Your task to perform on an android device: Go to eBay Image 0: 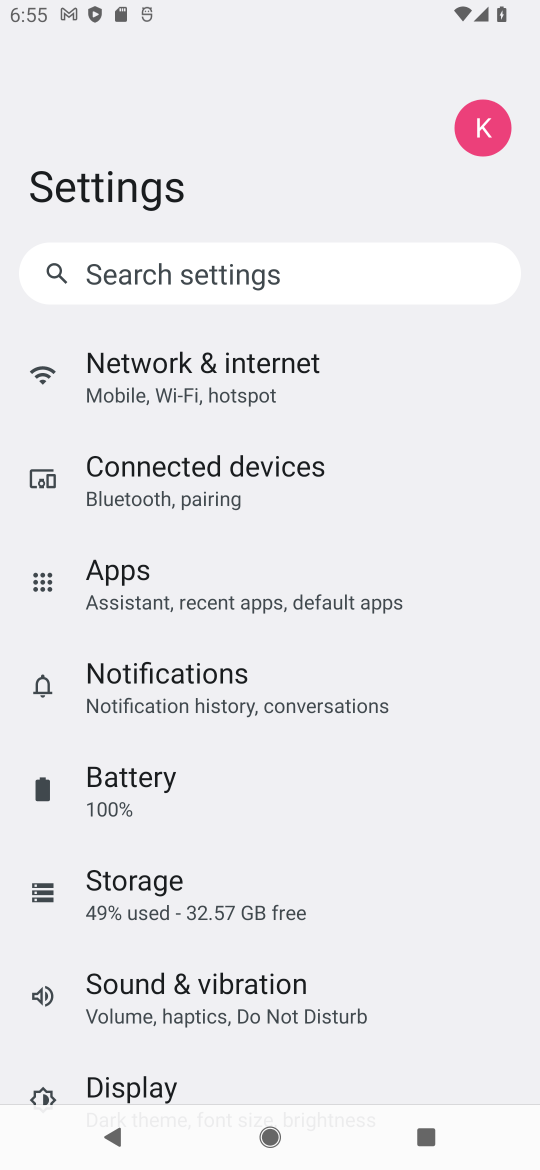
Step 0: press home button
Your task to perform on an android device: Go to eBay Image 1: 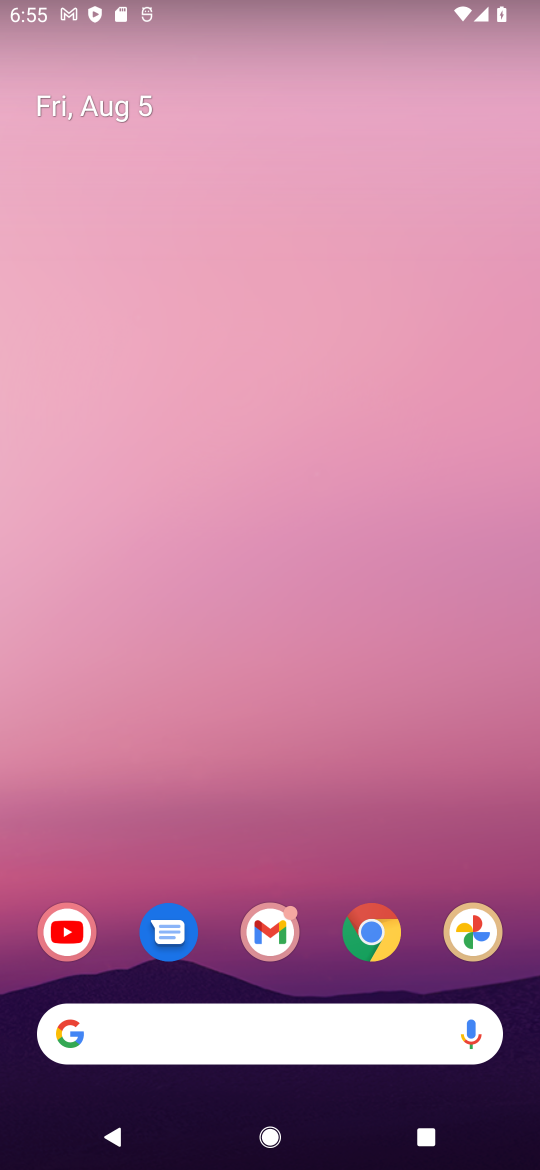
Step 1: drag from (376, 816) to (360, 152)
Your task to perform on an android device: Go to eBay Image 2: 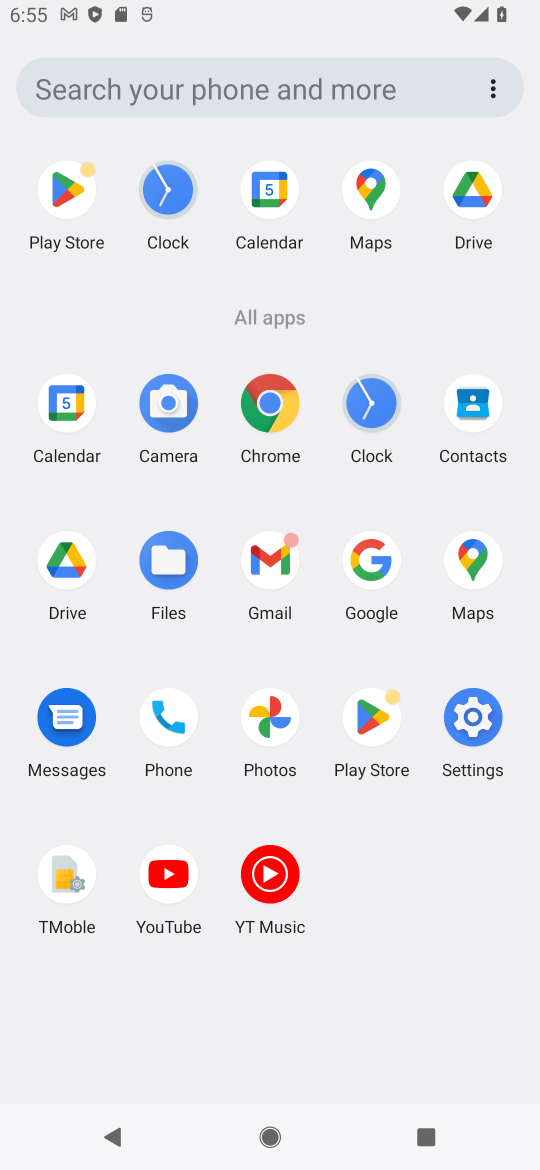
Step 2: click (277, 412)
Your task to perform on an android device: Go to eBay Image 3: 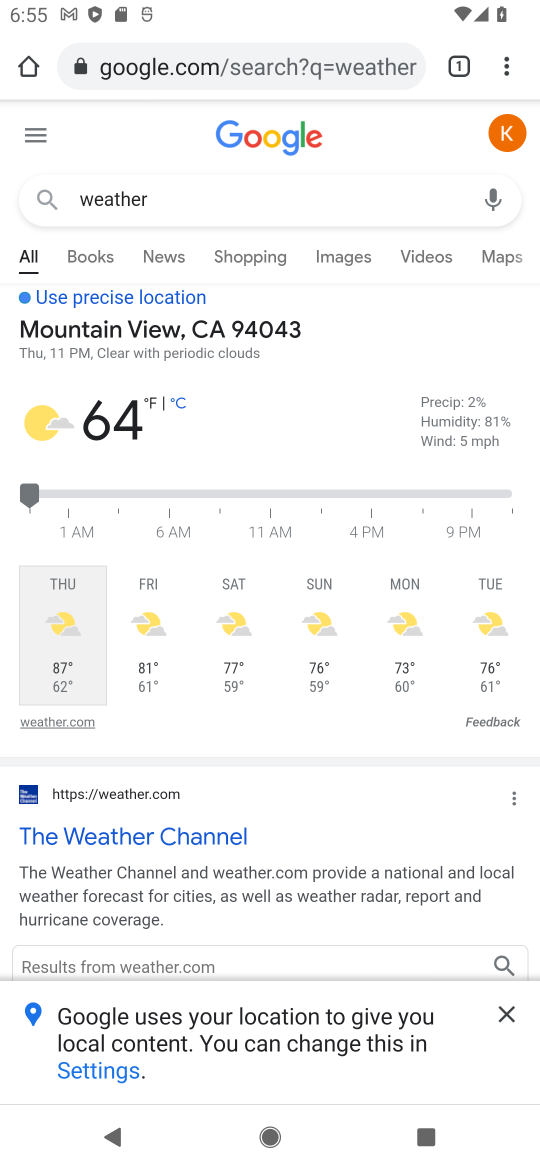
Step 3: click (272, 60)
Your task to perform on an android device: Go to eBay Image 4: 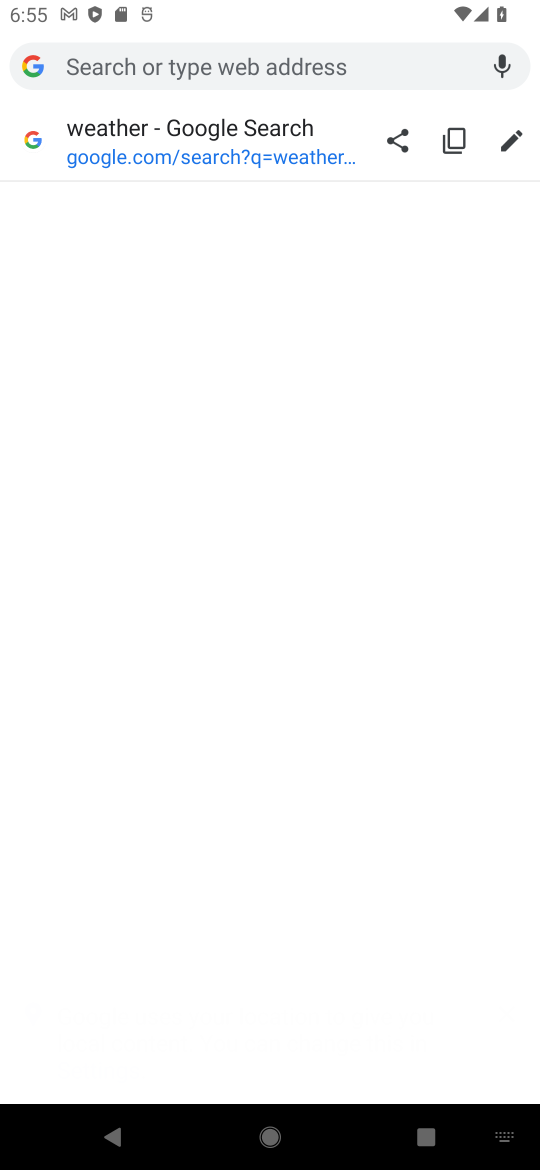
Step 4: type "ebay"
Your task to perform on an android device: Go to eBay Image 5: 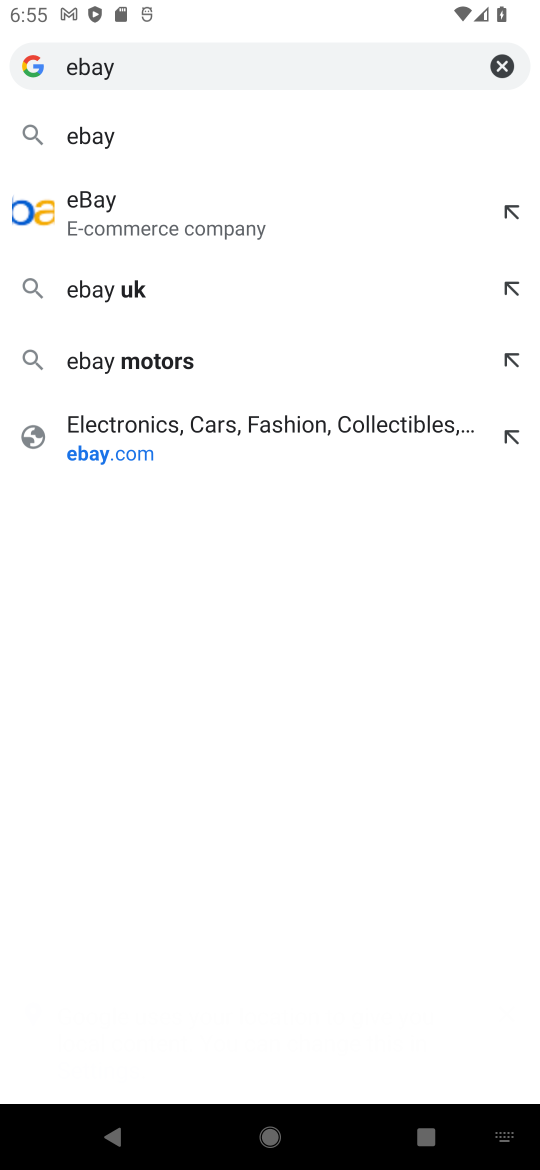
Step 5: press enter
Your task to perform on an android device: Go to eBay Image 6: 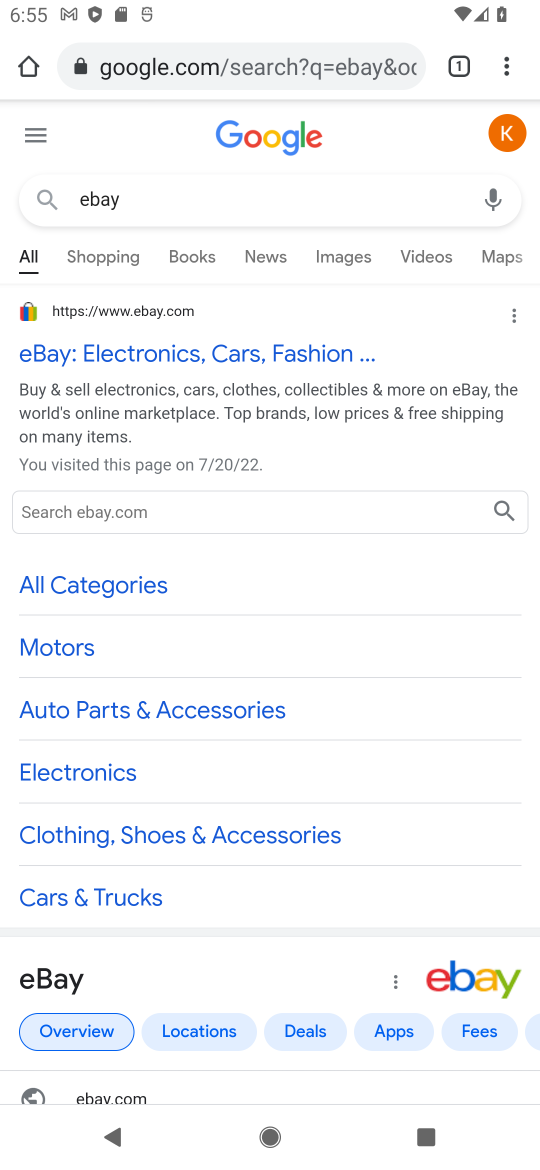
Step 6: click (135, 340)
Your task to perform on an android device: Go to eBay Image 7: 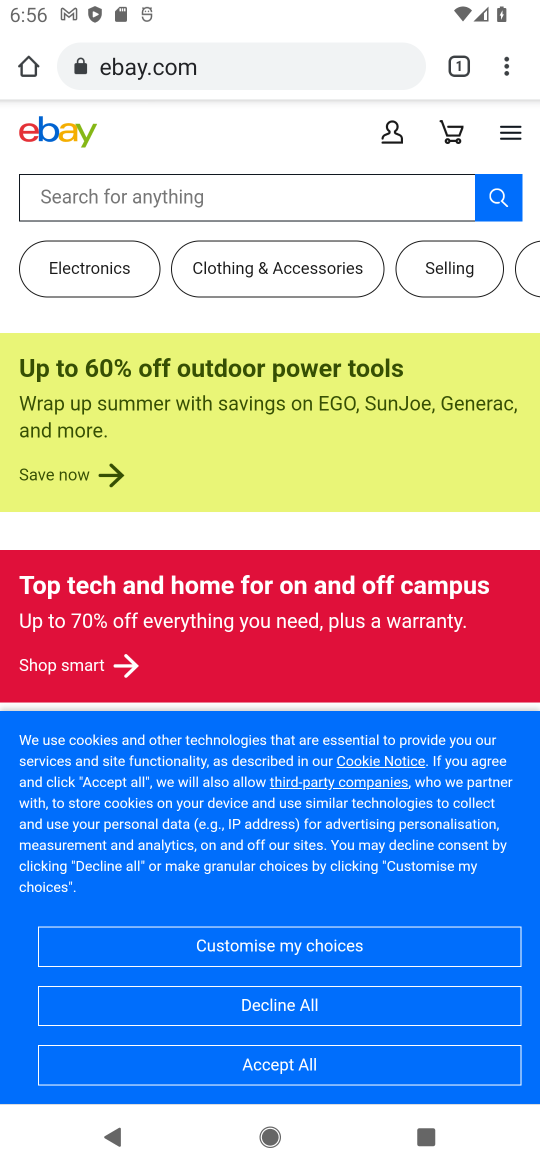
Step 7: task complete